Your task to perform on an android device: check storage Image 0: 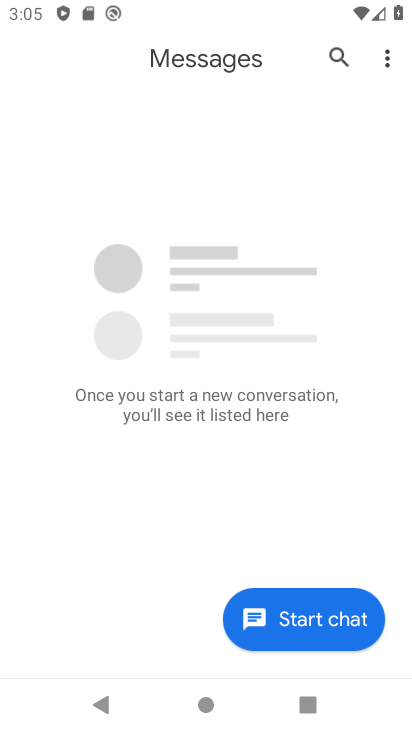
Step 0: press home button
Your task to perform on an android device: check storage Image 1: 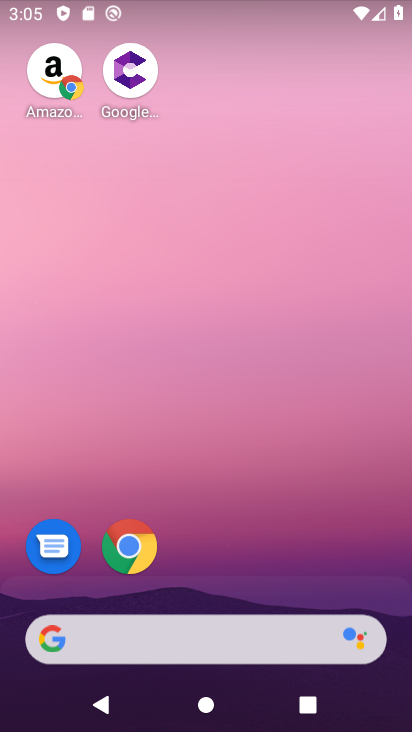
Step 1: drag from (249, 480) to (12, 121)
Your task to perform on an android device: check storage Image 2: 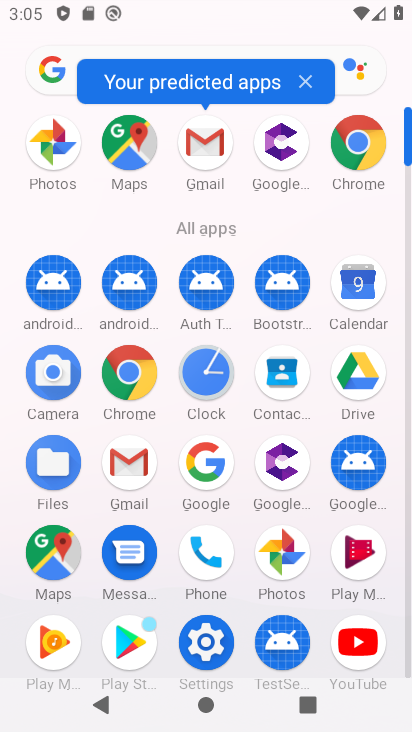
Step 2: click (202, 648)
Your task to perform on an android device: check storage Image 3: 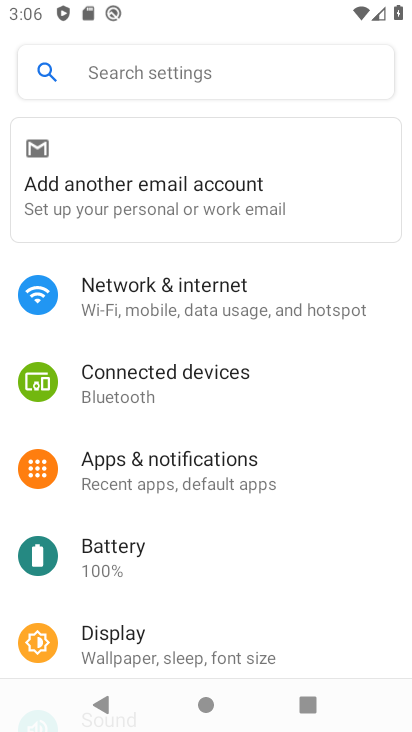
Step 3: drag from (237, 586) to (164, 218)
Your task to perform on an android device: check storage Image 4: 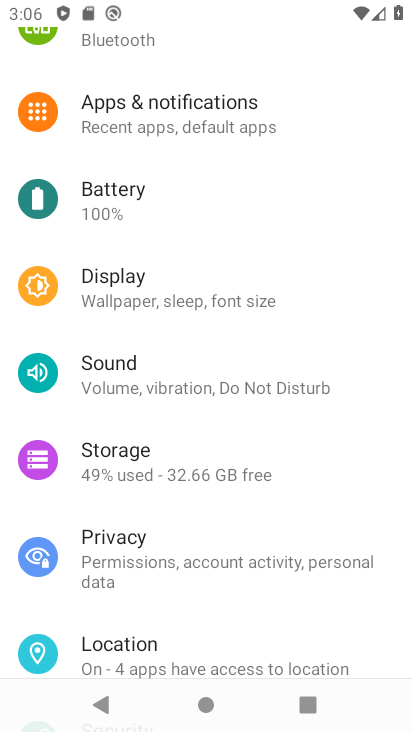
Step 4: click (188, 484)
Your task to perform on an android device: check storage Image 5: 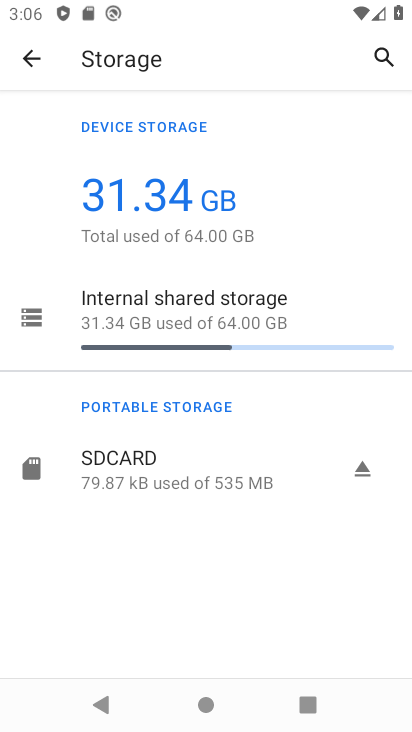
Step 5: click (145, 344)
Your task to perform on an android device: check storage Image 6: 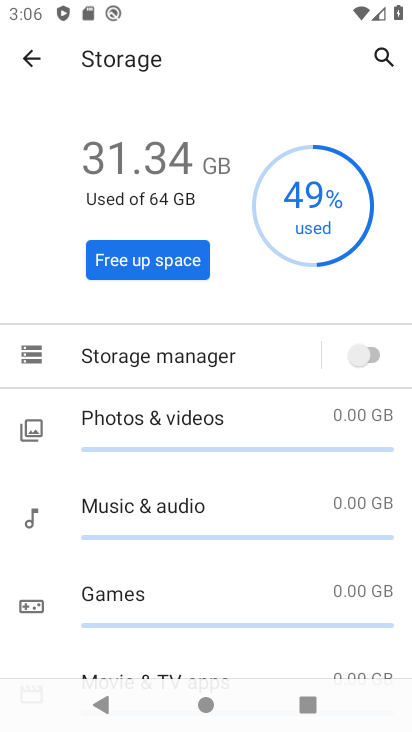
Step 6: task complete